Your task to perform on an android device: show emergency info Image 0: 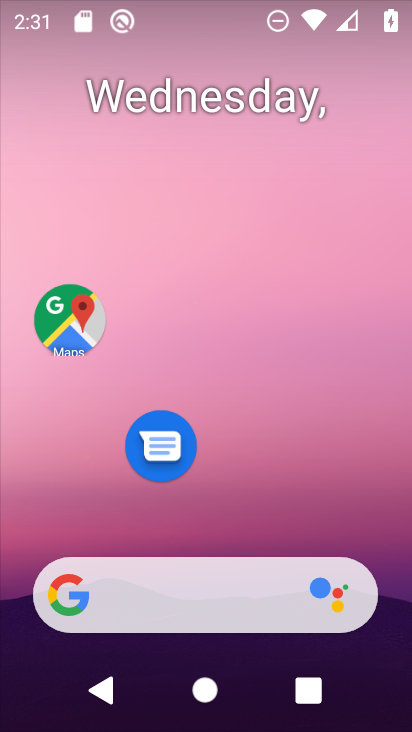
Step 0: drag from (288, 480) to (107, 0)
Your task to perform on an android device: show emergency info Image 1: 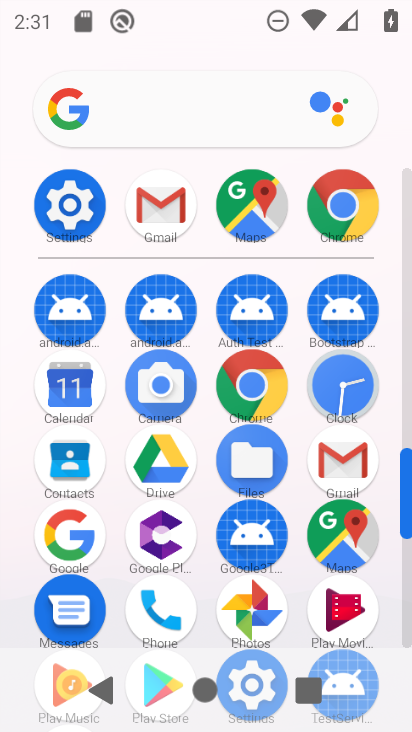
Step 1: click (60, 191)
Your task to perform on an android device: show emergency info Image 2: 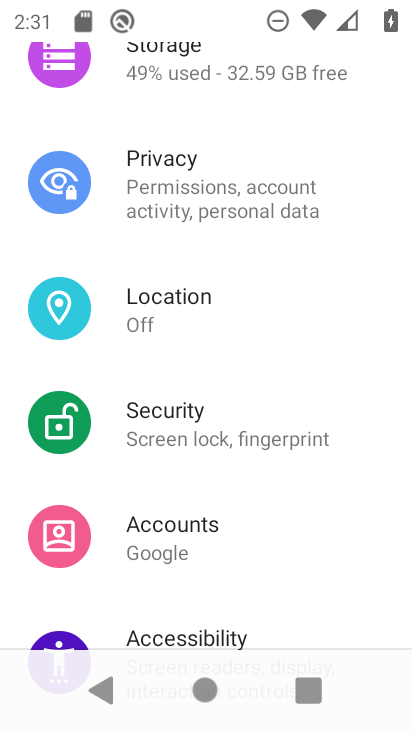
Step 2: drag from (209, 518) to (160, 161)
Your task to perform on an android device: show emergency info Image 3: 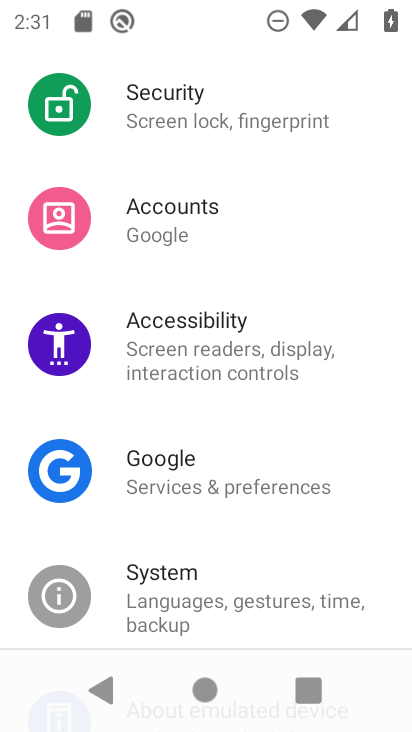
Step 3: drag from (160, 161) to (134, 67)
Your task to perform on an android device: show emergency info Image 4: 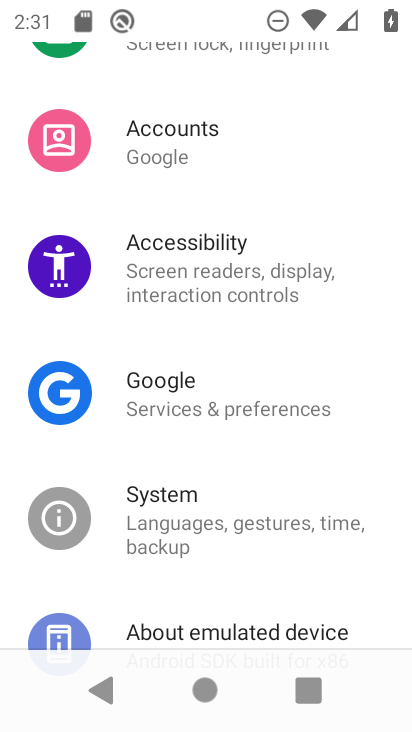
Step 4: click (225, 621)
Your task to perform on an android device: show emergency info Image 5: 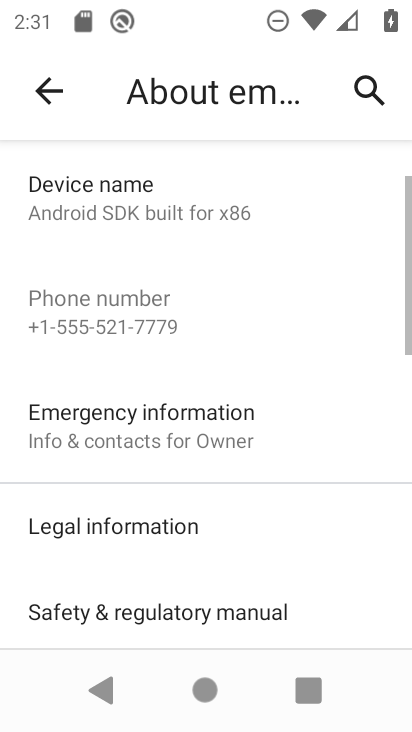
Step 5: click (194, 424)
Your task to perform on an android device: show emergency info Image 6: 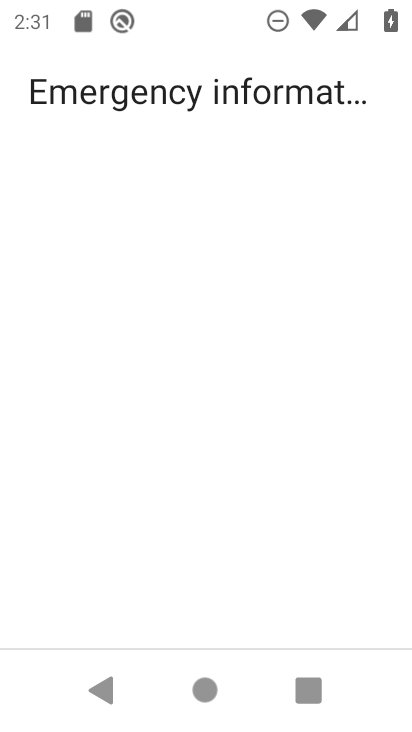
Step 6: task complete